Your task to perform on an android device: Open Chrome and go to settings Image 0: 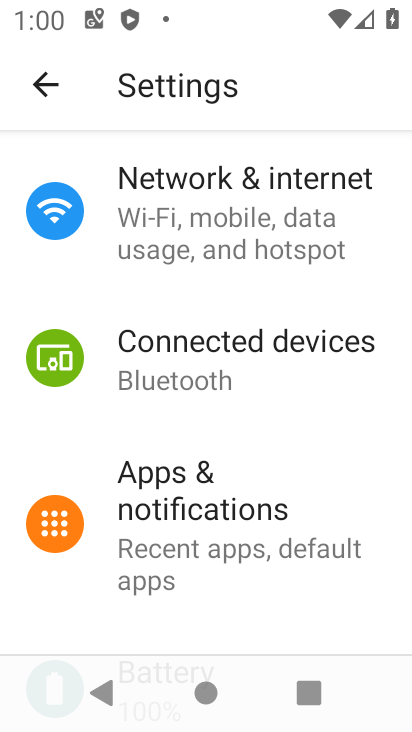
Step 0: press home button
Your task to perform on an android device: Open Chrome and go to settings Image 1: 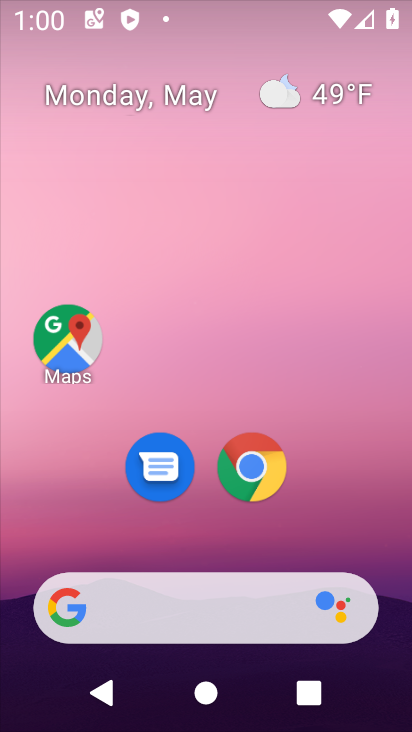
Step 1: drag from (370, 539) to (347, 168)
Your task to perform on an android device: Open Chrome and go to settings Image 2: 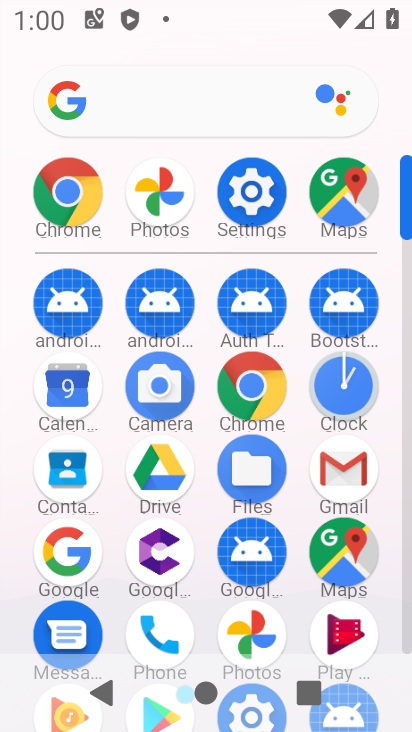
Step 2: click (242, 384)
Your task to perform on an android device: Open Chrome and go to settings Image 3: 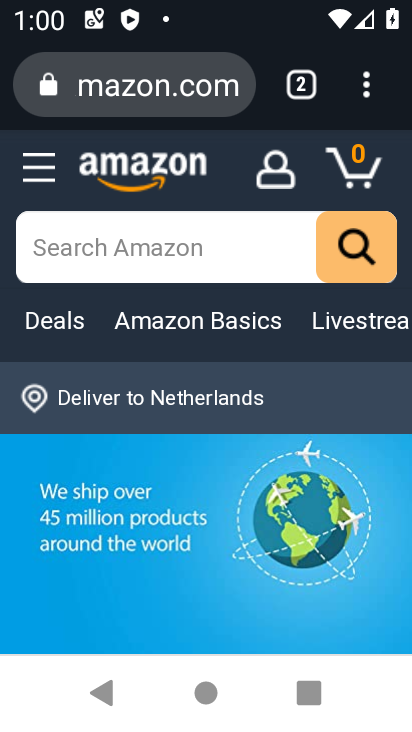
Step 3: task complete